Your task to perform on an android device: uninstall "Microsoft Excel" Image 0: 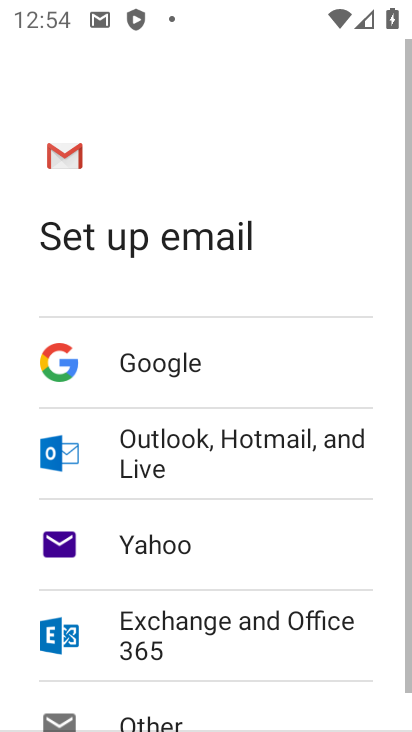
Step 0: press back button
Your task to perform on an android device: uninstall "Microsoft Excel" Image 1: 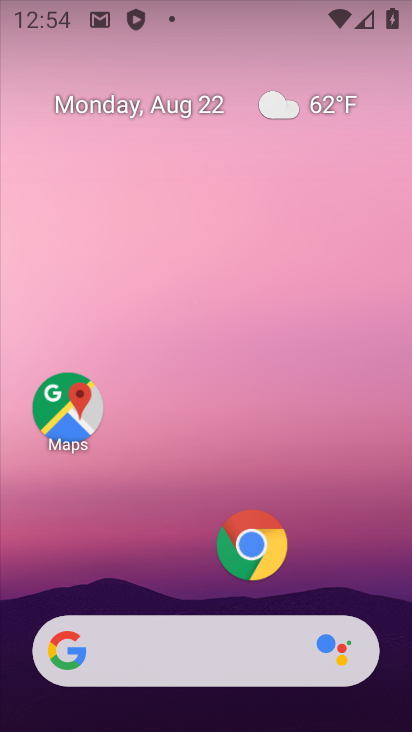
Step 1: drag from (184, 516) to (259, 1)
Your task to perform on an android device: uninstall "Microsoft Excel" Image 2: 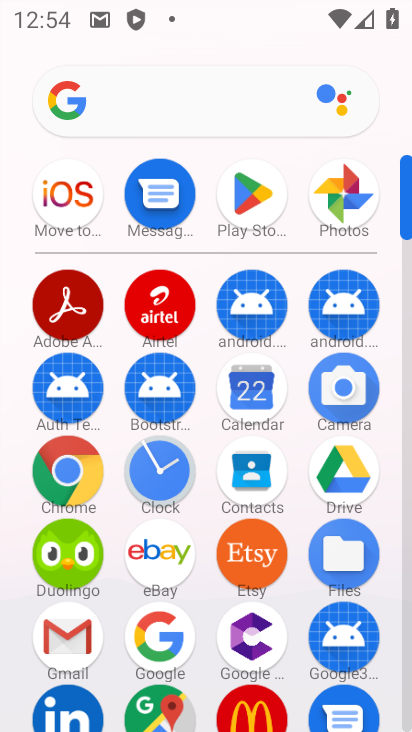
Step 2: click (262, 192)
Your task to perform on an android device: uninstall "Microsoft Excel" Image 3: 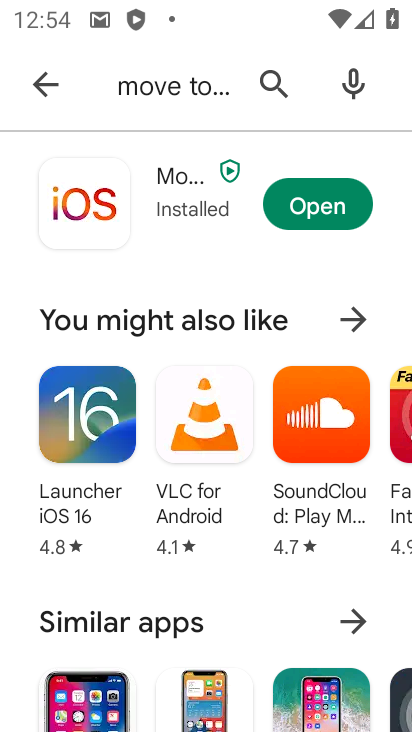
Step 3: click (274, 65)
Your task to perform on an android device: uninstall "Microsoft Excel" Image 4: 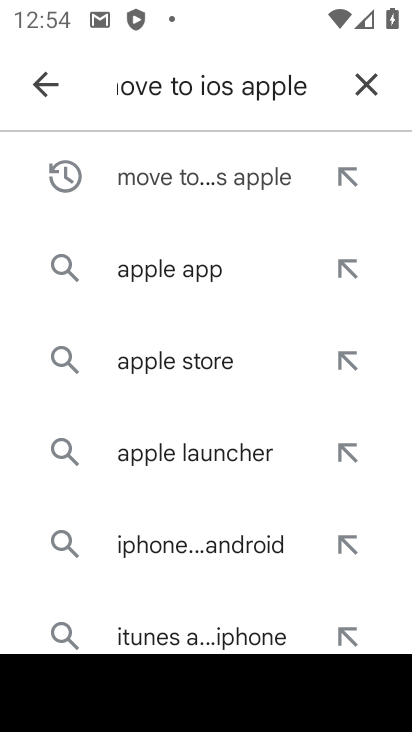
Step 4: click (357, 86)
Your task to perform on an android device: uninstall "Microsoft Excel" Image 5: 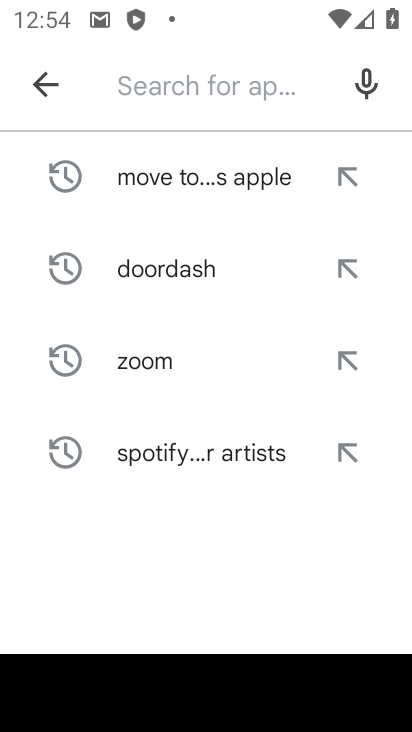
Step 5: click (221, 90)
Your task to perform on an android device: uninstall "Microsoft Excel" Image 6: 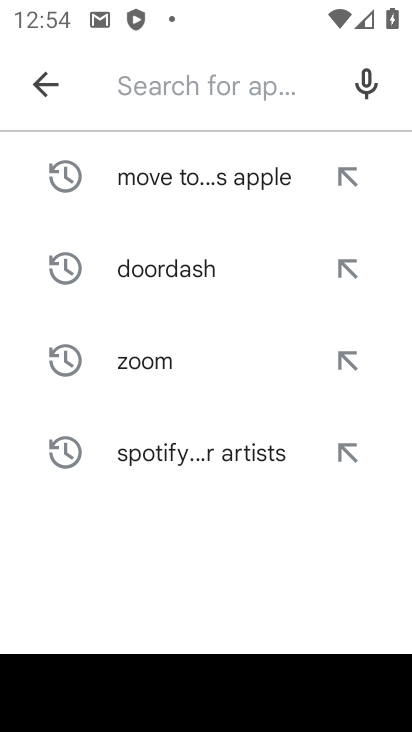
Step 6: click (143, 73)
Your task to perform on an android device: uninstall "Microsoft Excel" Image 7: 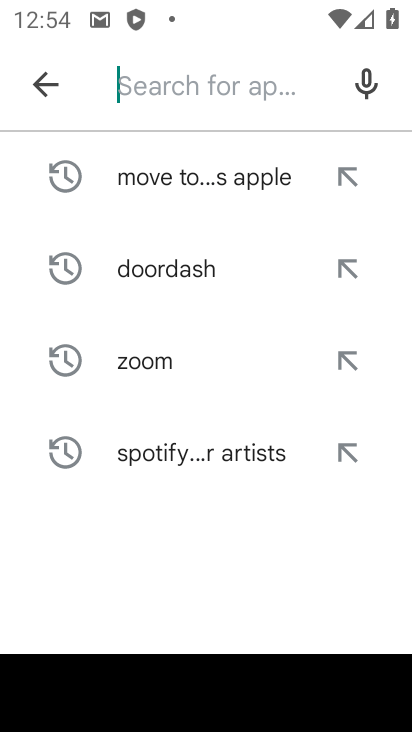
Step 7: type "Microsoft Excel"
Your task to perform on an android device: uninstall "Microsoft Excel" Image 8: 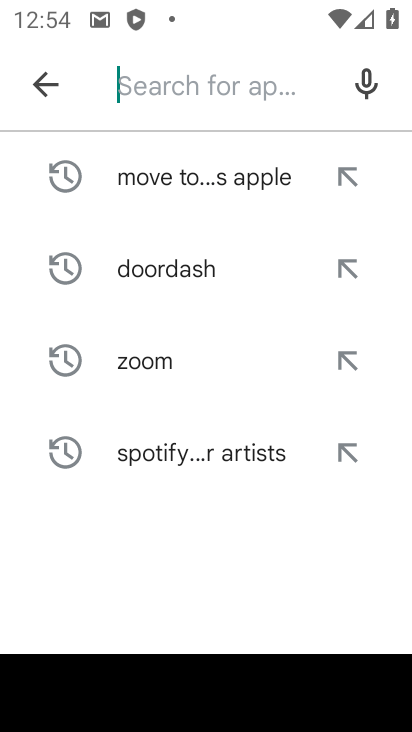
Step 8: click (235, 596)
Your task to perform on an android device: uninstall "Microsoft Excel" Image 9: 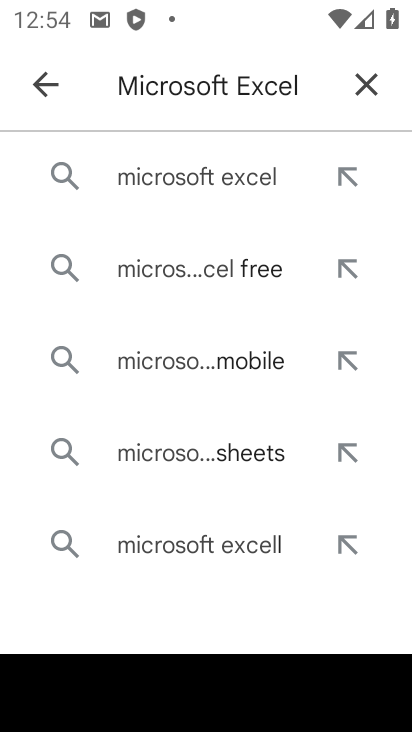
Step 9: click (192, 187)
Your task to perform on an android device: uninstall "Microsoft Excel" Image 10: 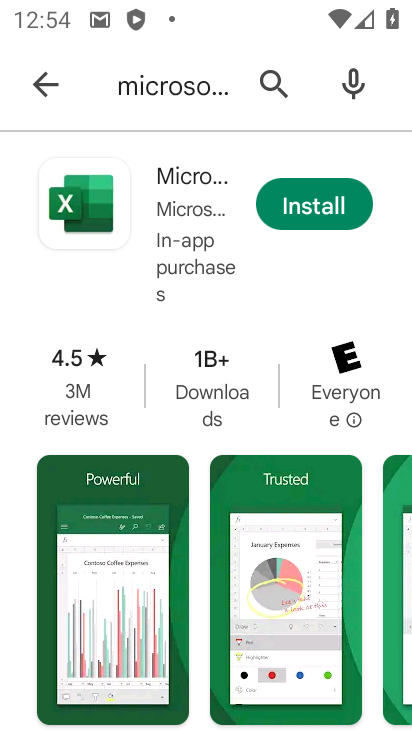
Step 10: task complete